Your task to perform on an android device: Open calendar and show me the second week of next month Image 0: 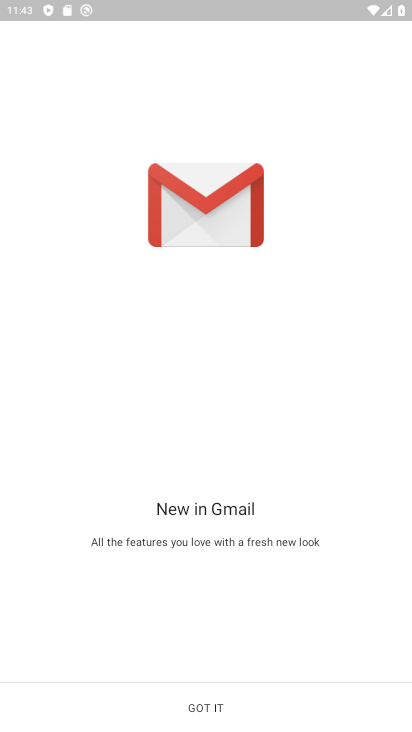
Step 0: press home button
Your task to perform on an android device: Open calendar and show me the second week of next month Image 1: 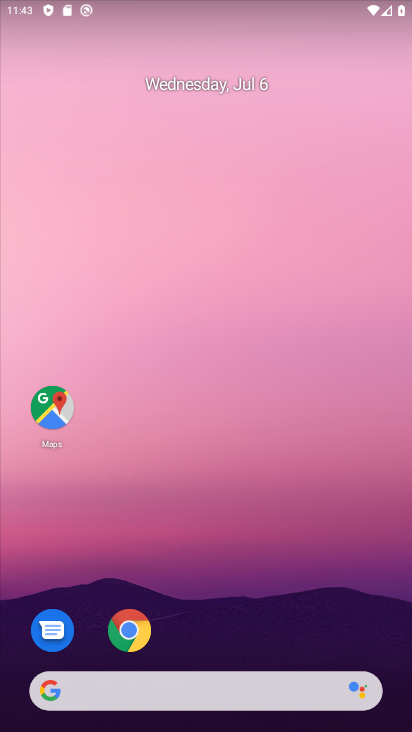
Step 1: drag from (236, 618) to (268, 183)
Your task to perform on an android device: Open calendar and show me the second week of next month Image 2: 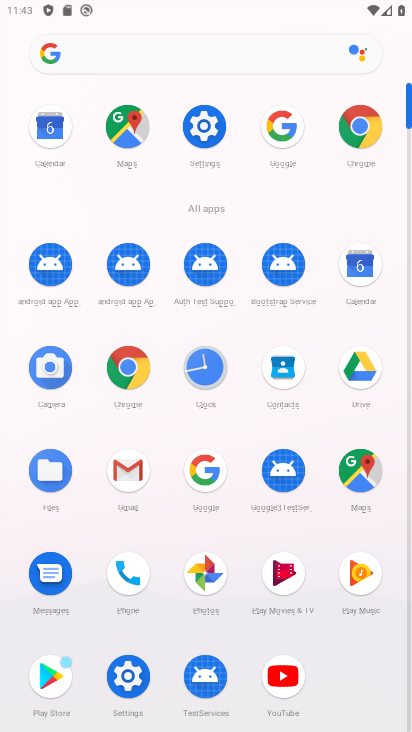
Step 2: click (361, 279)
Your task to perform on an android device: Open calendar and show me the second week of next month Image 3: 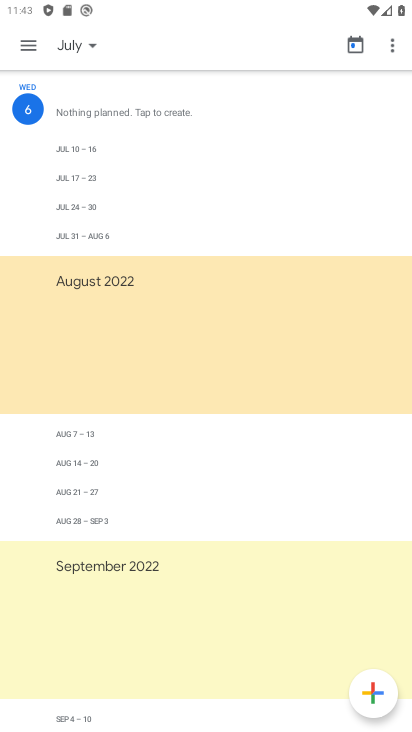
Step 3: press back button
Your task to perform on an android device: Open calendar and show me the second week of next month Image 4: 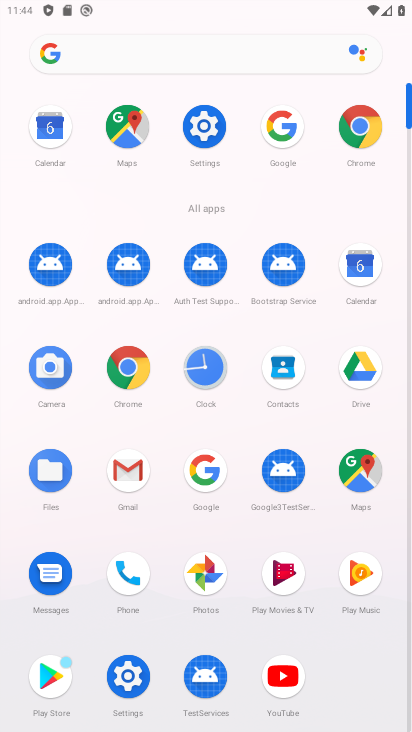
Step 4: click (361, 299)
Your task to perform on an android device: Open calendar and show me the second week of next month Image 5: 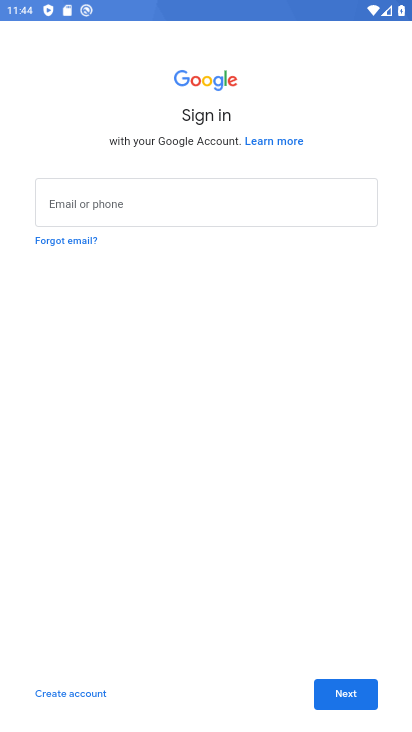
Step 5: click (202, 214)
Your task to perform on an android device: Open calendar and show me the second week of next month Image 6: 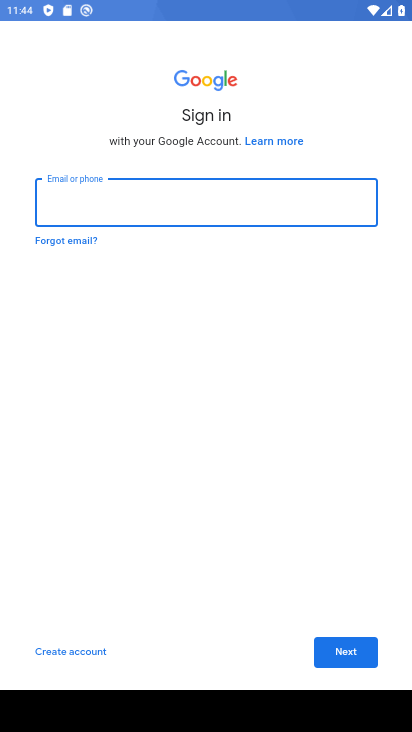
Step 6: click (326, 660)
Your task to perform on an android device: Open calendar and show me the second week of next month Image 7: 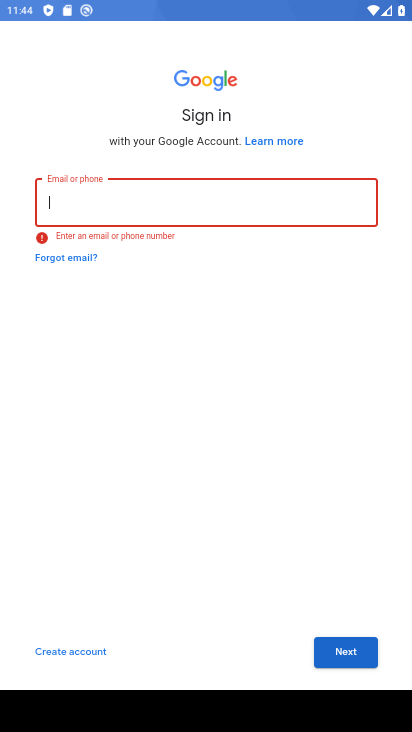
Step 7: task complete